Your task to perform on an android device: allow cookies in the chrome app Image 0: 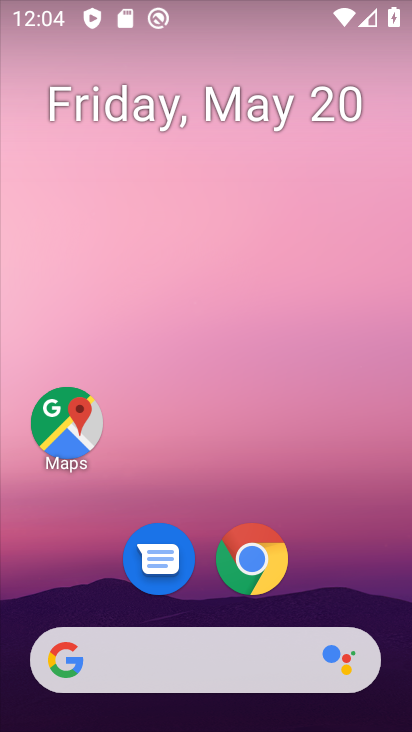
Step 0: press home button
Your task to perform on an android device: allow cookies in the chrome app Image 1: 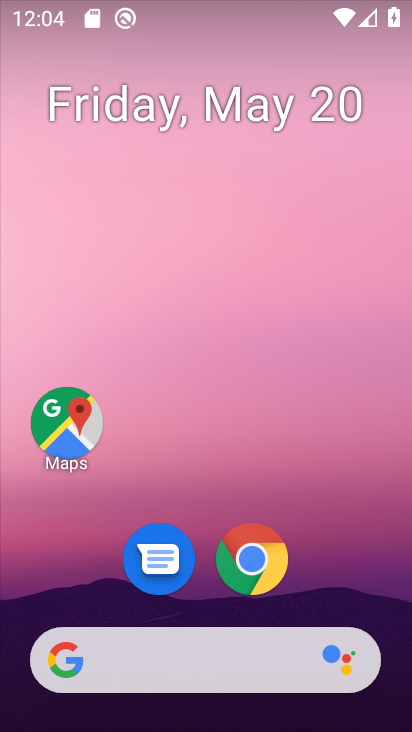
Step 1: click (246, 553)
Your task to perform on an android device: allow cookies in the chrome app Image 2: 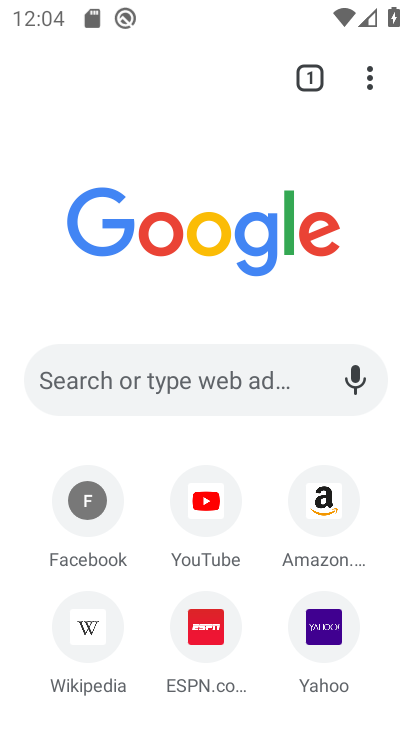
Step 2: click (375, 85)
Your task to perform on an android device: allow cookies in the chrome app Image 3: 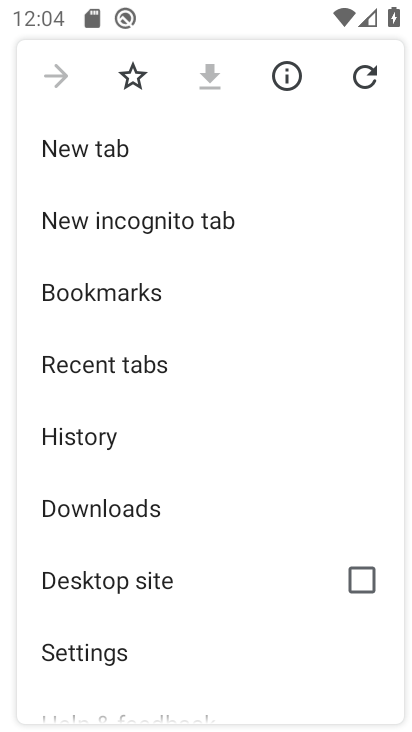
Step 3: drag from (179, 592) to (147, 310)
Your task to perform on an android device: allow cookies in the chrome app Image 4: 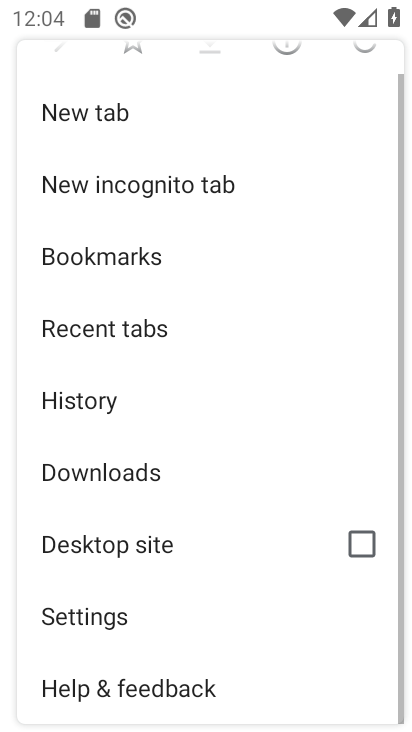
Step 4: click (152, 618)
Your task to perform on an android device: allow cookies in the chrome app Image 5: 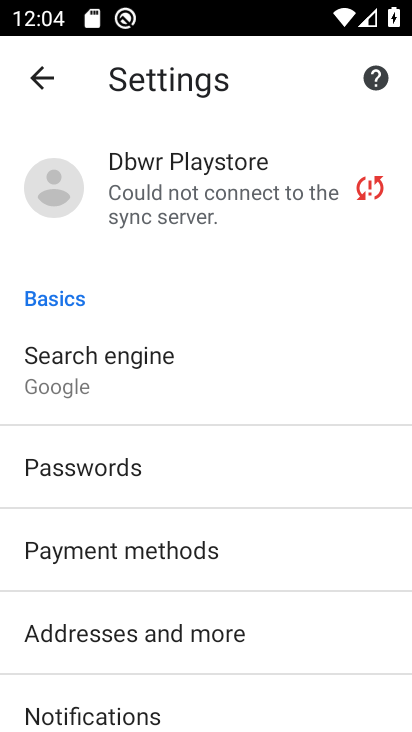
Step 5: drag from (297, 632) to (219, 256)
Your task to perform on an android device: allow cookies in the chrome app Image 6: 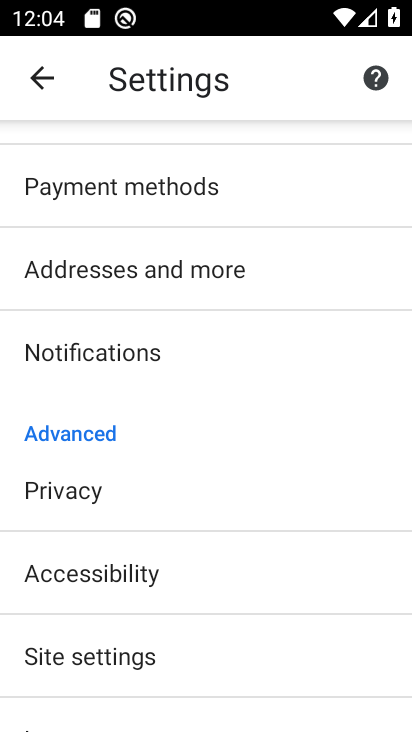
Step 6: click (218, 683)
Your task to perform on an android device: allow cookies in the chrome app Image 7: 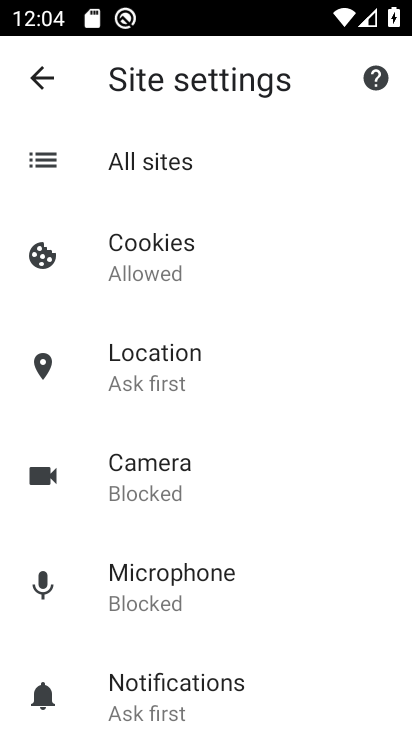
Step 7: drag from (218, 683) to (197, 718)
Your task to perform on an android device: allow cookies in the chrome app Image 8: 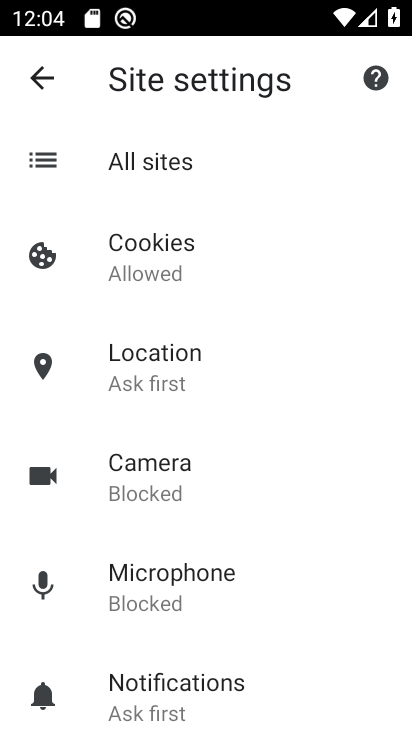
Step 8: click (199, 268)
Your task to perform on an android device: allow cookies in the chrome app Image 9: 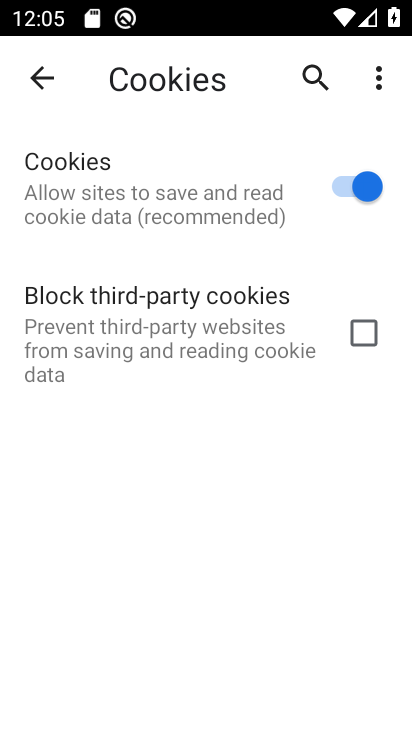
Step 9: task complete